Your task to perform on an android device: Search for vegetarian restaurants on Maps Image 0: 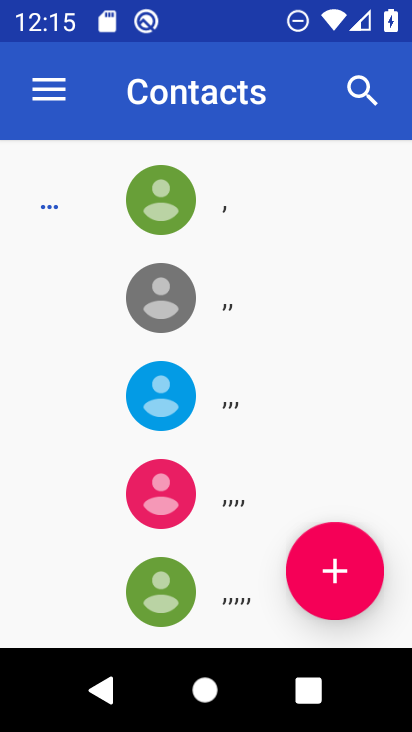
Step 0: press home button
Your task to perform on an android device: Search for vegetarian restaurants on Maps Image 1: 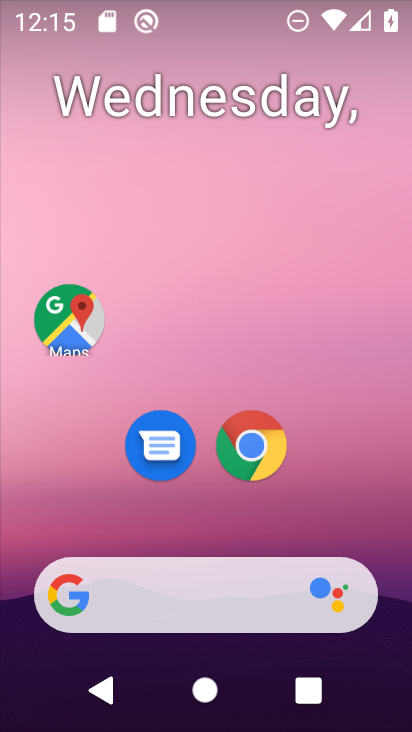
Step 1: drag from (392, 629) to (277, 64)
Your task to perform on an android device: Search for vegetarian restaurants on Maps Image 2: 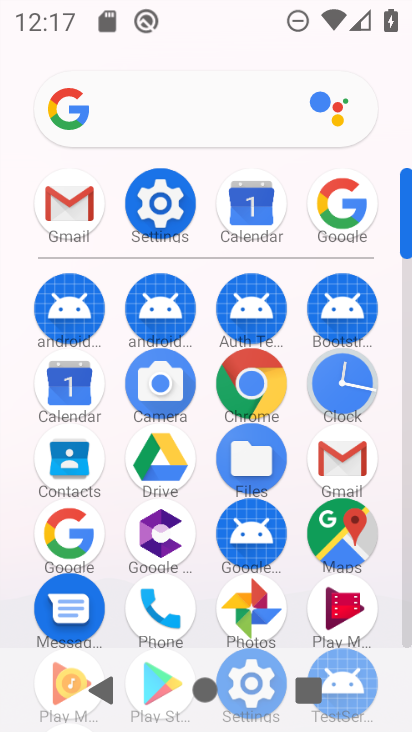
Step 2: click (337, 537)
Your task to perform on an android device: Search for vegetarian restaurants on Maps Image 3: 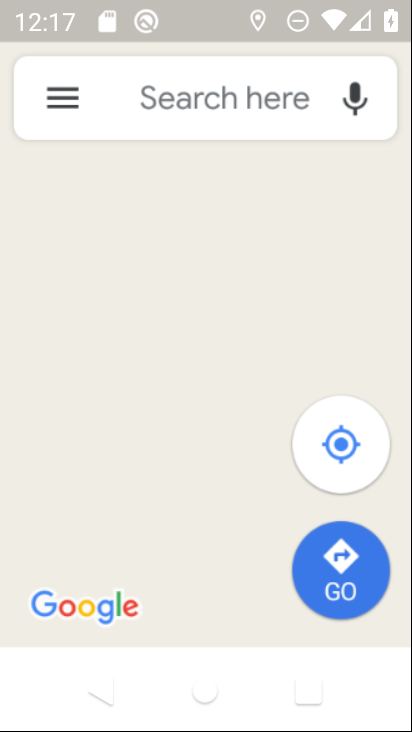
Step 3: click (145, 83)
Your task to perform on an android device: Search for vegetarian restaurants on Maps Image 4: 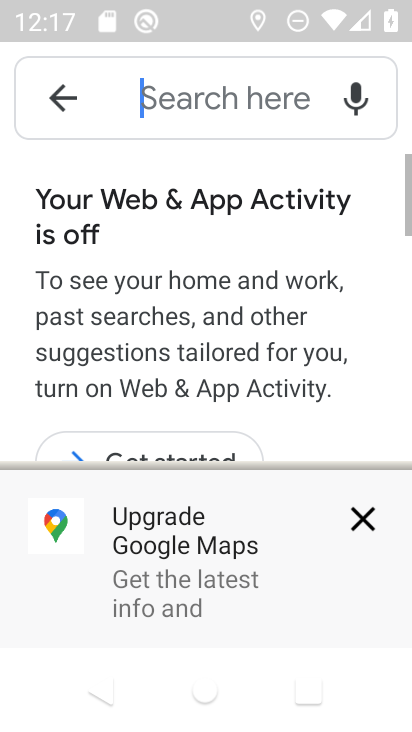
Step 4: click (361, 474)
Your task to perform on an android device: Search for vegetarian restaurants on Maps Image 5: 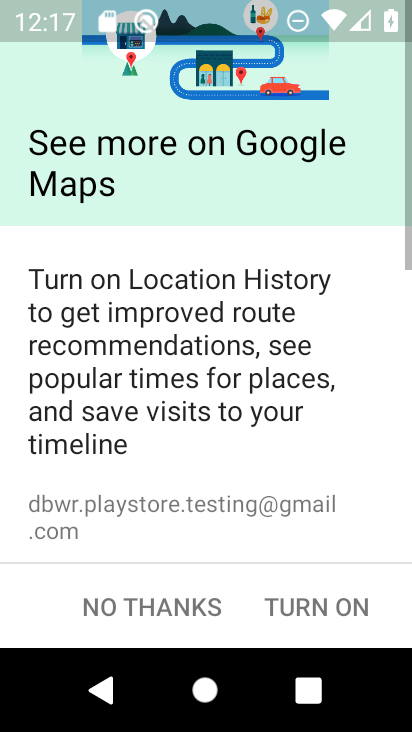
Step 5: click (165, 620)
Your task to perform on an android device: Search for vegetarian restaurants on Maps Image 6: 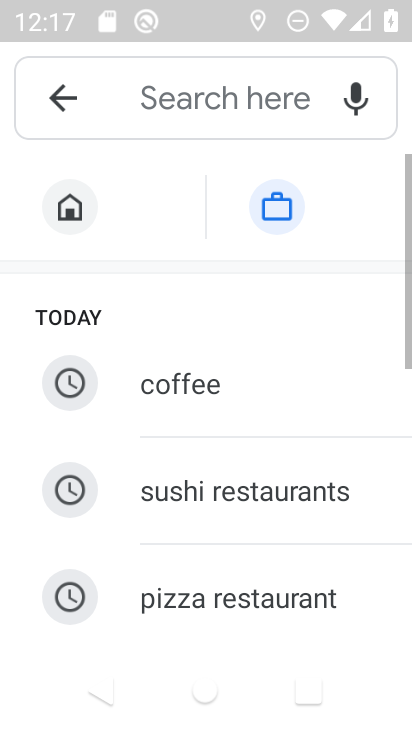
Step 6: click (204, 95)
Your task to perform on an android device: Search for vegetarian restaurants on Maps Image 7: 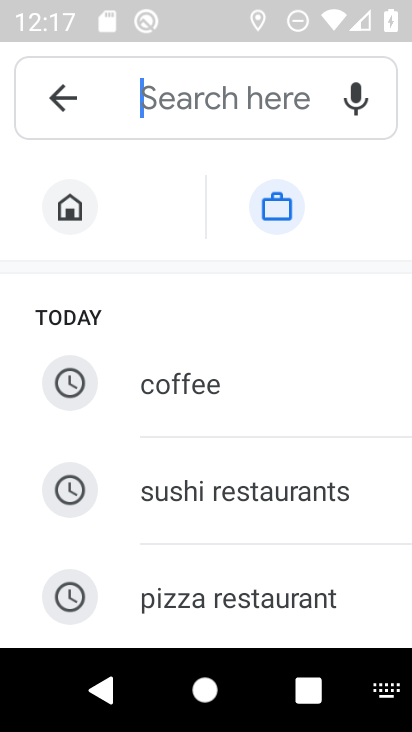
Step 7: drag from (214, 596) to (221, 182)
Your task to perform on an android device: Search for vegetarian restaurants on Maps Image 8: 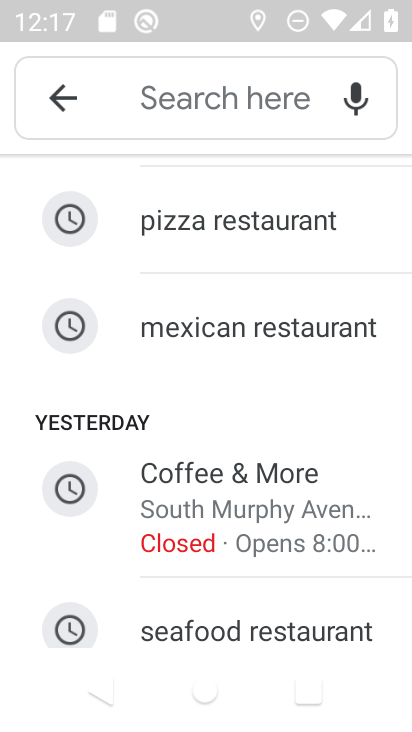
Step 8: drag from (202, 265) to (222, 730)
Your task to perform on an android device: Search for vegetarian restaurants on Maps Image 9: 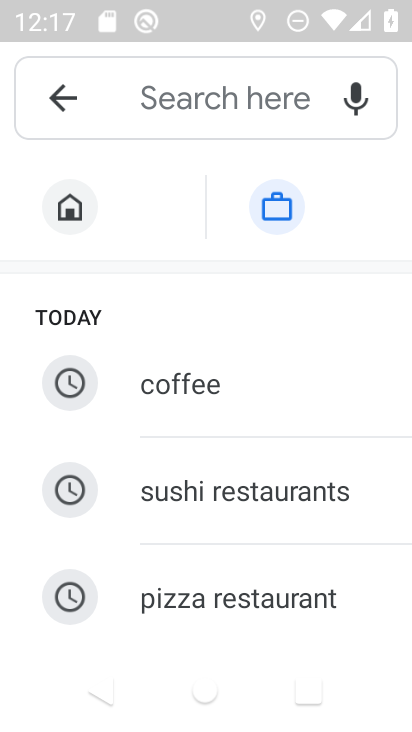
Step 9: click (244, 94)
Your task to perform on an android device: Search for vegetarian restaurants on Maps Image 10: 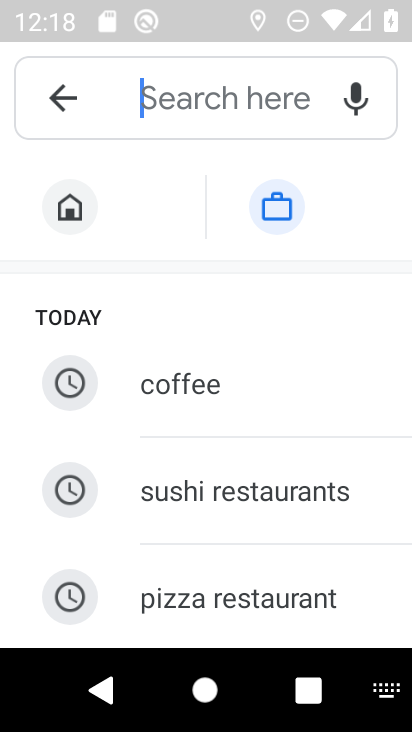
Step 10: type "vegetarian restaurants"
Your task to perform on an android device: Search for vegetarian restaurants on Maps Image 11: 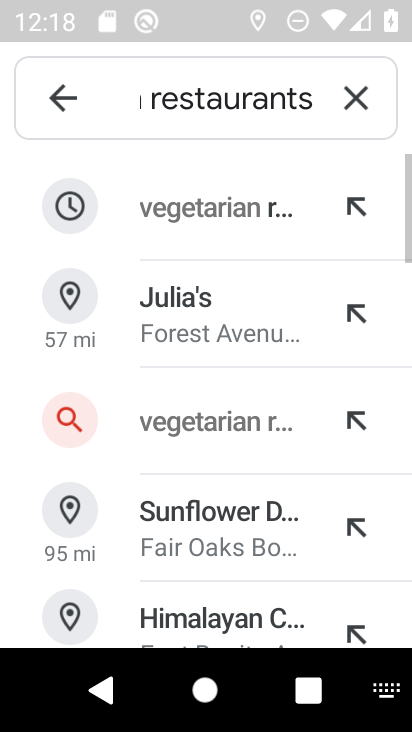
Step 11: click (195, 222)
Your task to perform on an android device: Search for vegetarian restaurants on Maps Image 12: 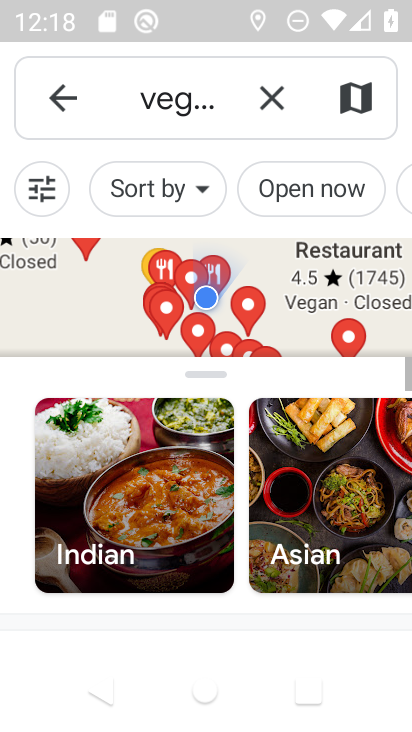
Step 12: task complete